Your task to perform on an android device: Open maps Image 0: 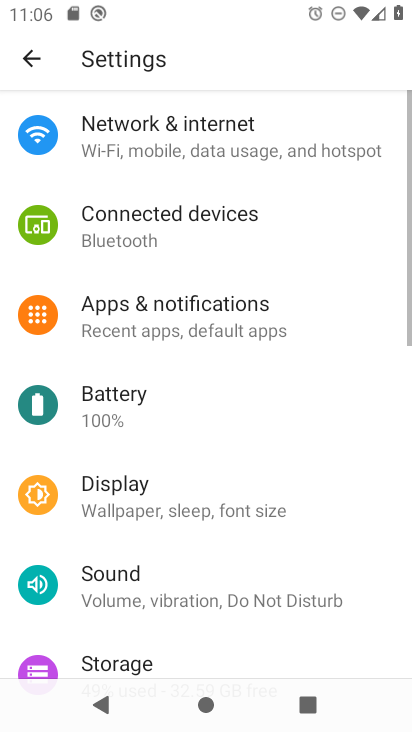
Step 0: press back button
Your task to perform on an android device: Open maps Image 1: 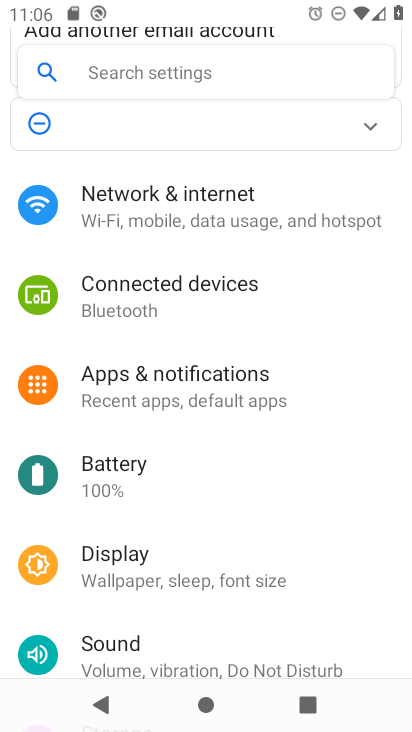
Step 1: press home button
Your task to perform on an android device: Open maps Image 2: 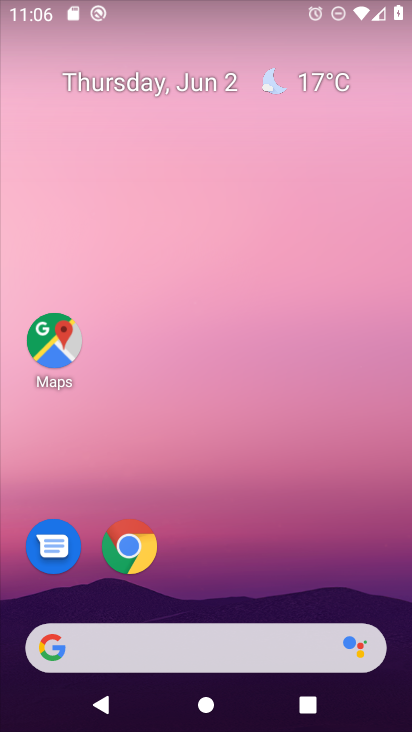
Step 2: click (52, 332)
Your task to perform on an android device: Open maps Image 3: 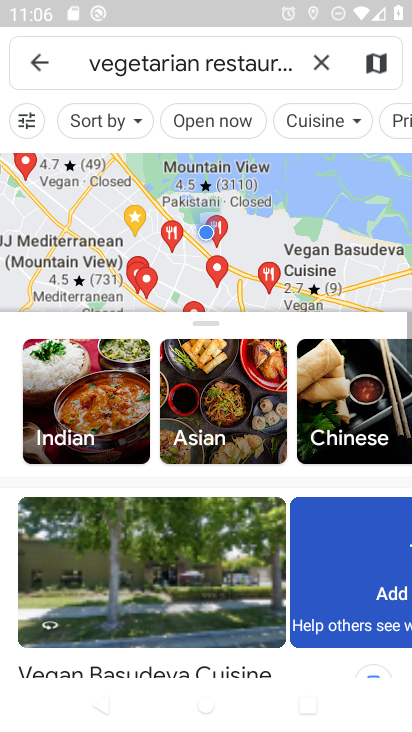
Step 3: click (43, 63)
Your task to perform on an android device: Open maps Image 4: 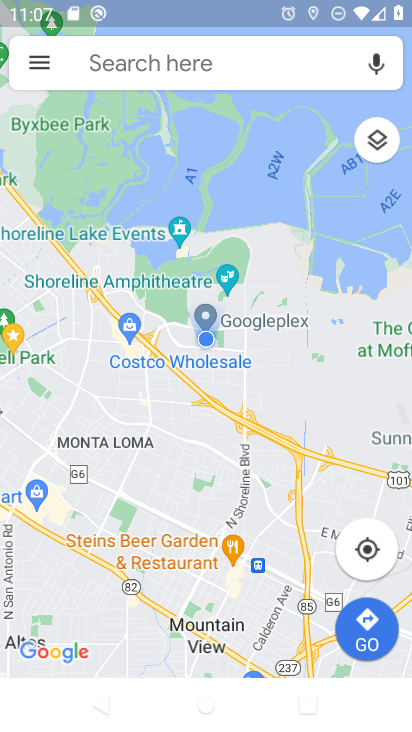
Step 4: task complete